Your task to perform on an android device: Go to Wikipedia Image 0: 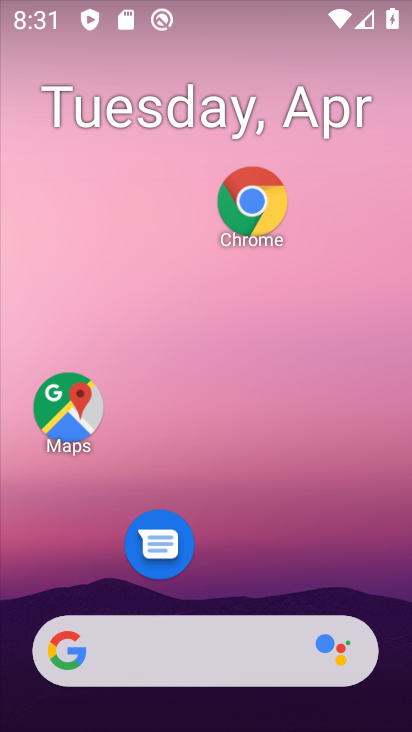
Step 0: drag from (268, 462) to (346, 147)
Your task to perform on an android device: Go to Wikipedia Image 1: 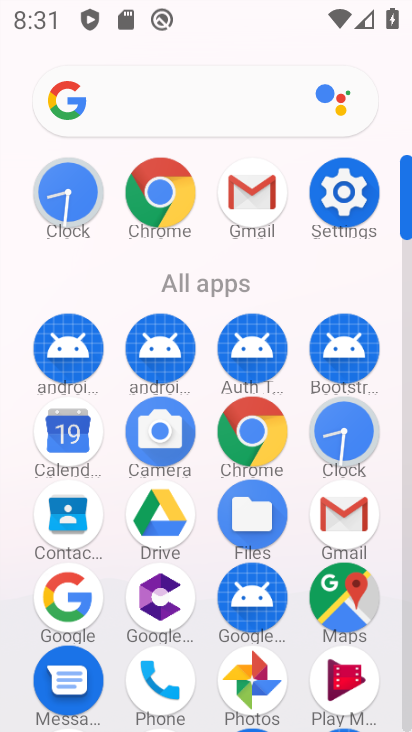
Step 1: click (173, 194)
Your task to perform on an android device: Go to Wikipedia Image 2: 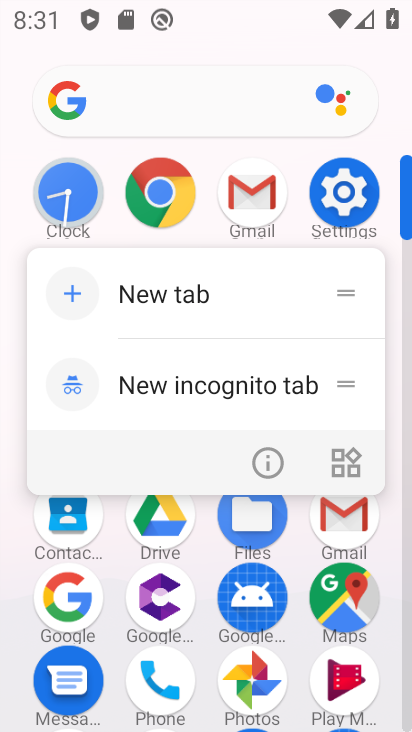
Step 2: click (169, 187)
Your task to perform on an android device: Go to Wikipedia Image 3: 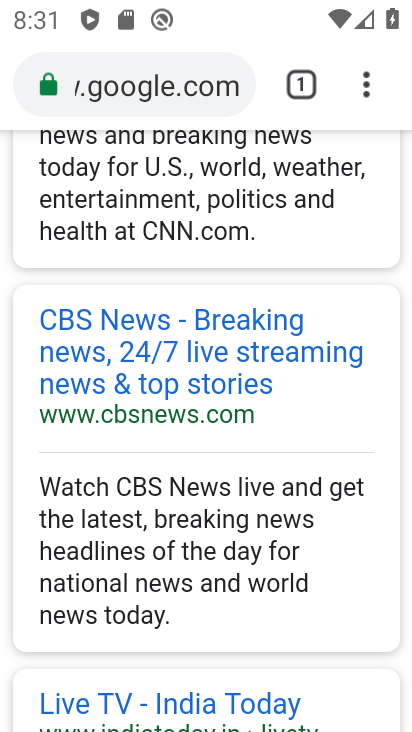
Step 3: click (290, 83)
Your task to perform on an android device: Go to Wikipedia Image 4: 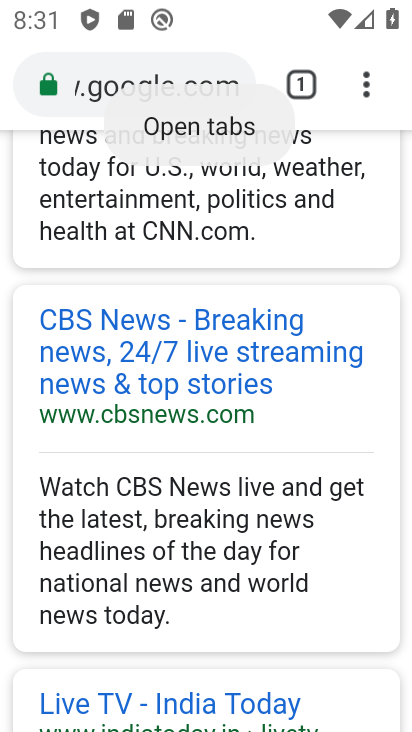
Step 4: click (311, 88)
Your task to perform on an android device: Go to Wikipedia Image 5: 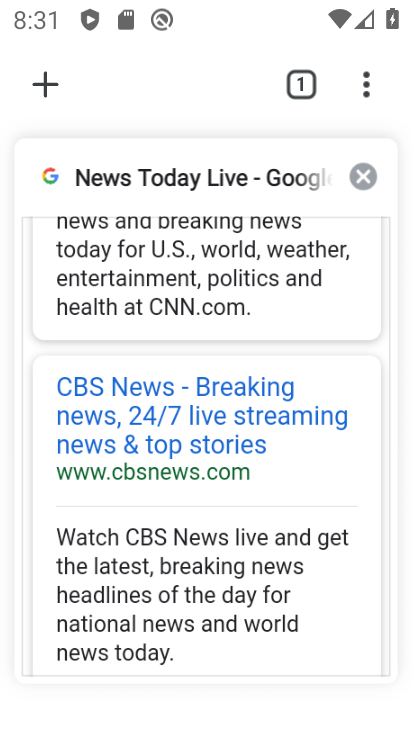
Step 5: click (43, 75)
Your task to perform on an android device: Go to Wikipedia Image 6: 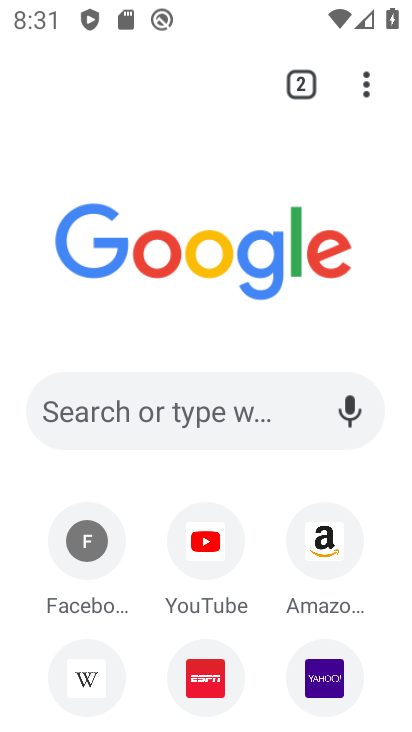
Step 6: click (82, 667)
Your task to perform on an android device: Go to Wikipedia Image 7: 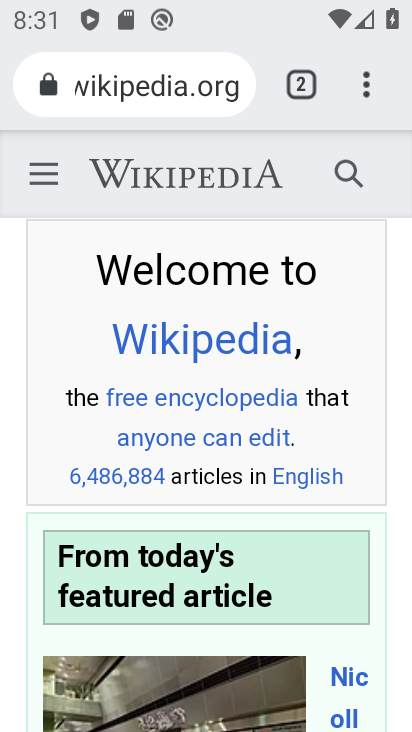
Step 7: task complete